Your task to perform on an android device: turn on the 12-hour format for clock Image 0: 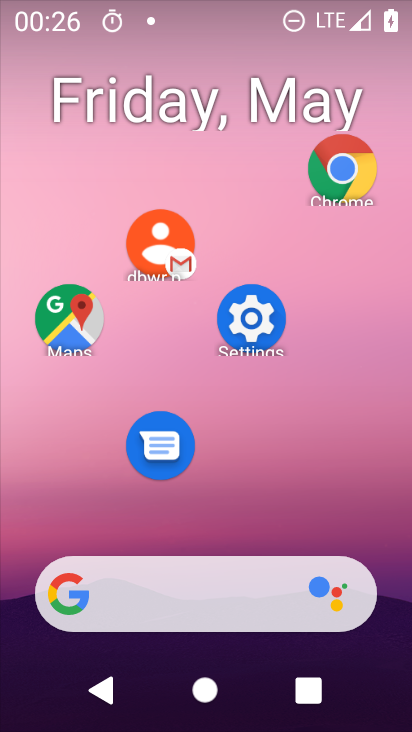
Step 0: drag from (213, 510) to (257, 126)
Your task to perform on an android device: turn on the 12-hour format for clock Image 1: 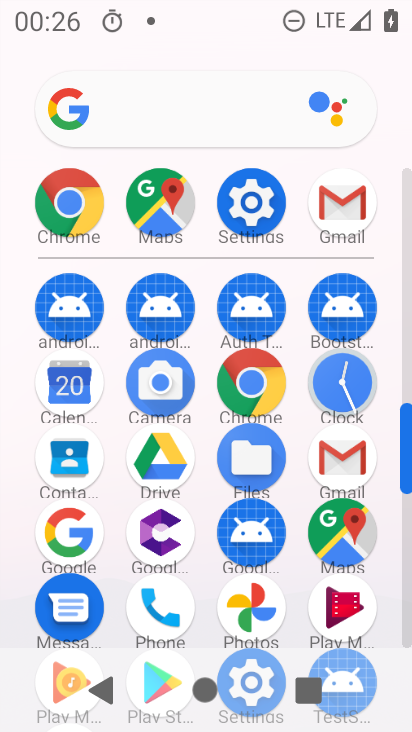
Step 1: click (340, 352)
Your task to perform on an android device: turn on the 12-hour format for clock Image 2: 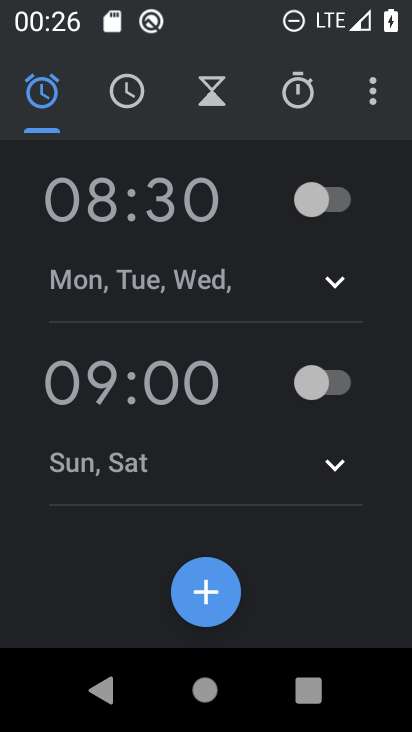
Step 2: click (371, 81)
Your task to perform on an android device: turn on the 12-hour format for clock Image 3: 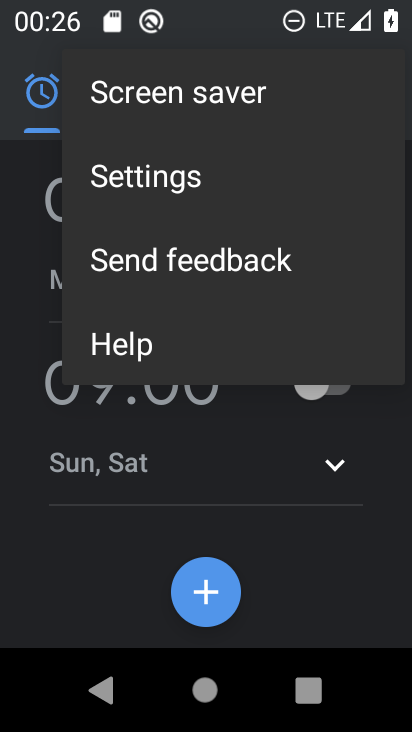
Step 3: click (209, 192)
Your task to perform on an android device: turn on the 12-hour format for clock Image 4: 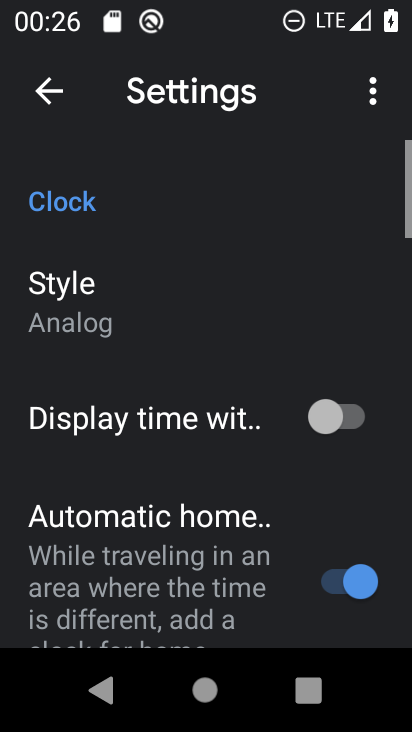
Step 4: drag from (252, 469) to (354, 68)
Your task to perform on an android device: turn on the 12-hour format for clock Image 5: 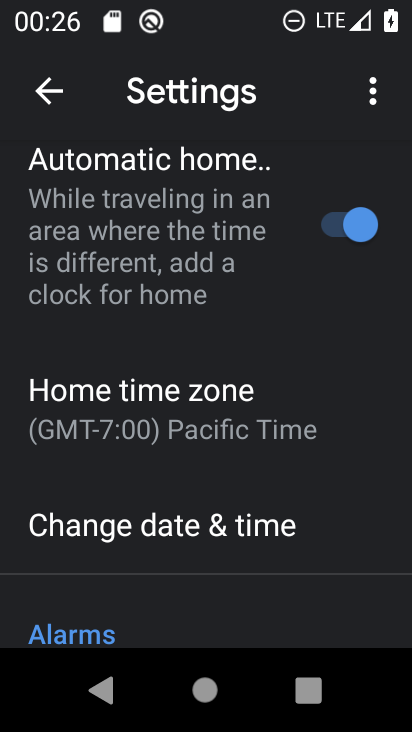
Step 5: click (223, 510)
Your task to perform on an android device: turn on the 12-hour format for clock Image 6: 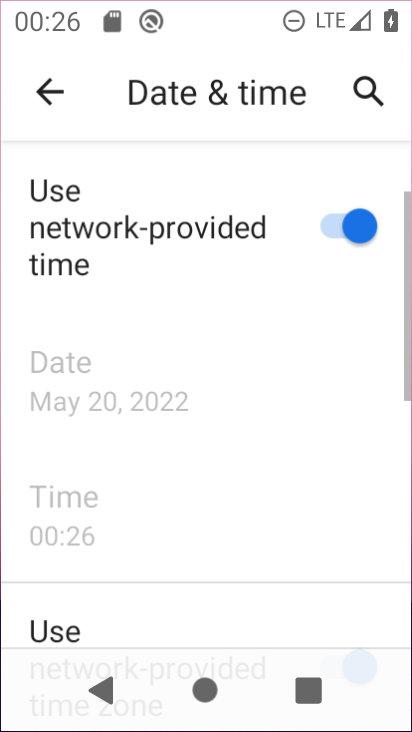
Step 6: drag from (296, 523) to (382, 16)
Your task to perform on an android device: turn on the 12-hour format for clock Image 7: 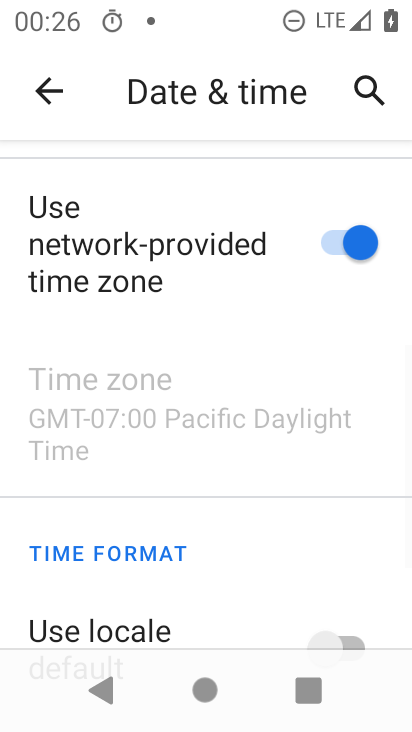
Step 7: drag from (321, 587) to (381, 155)
Your task to perform on an android device: turn on the 12-hour format for clock Image 8: 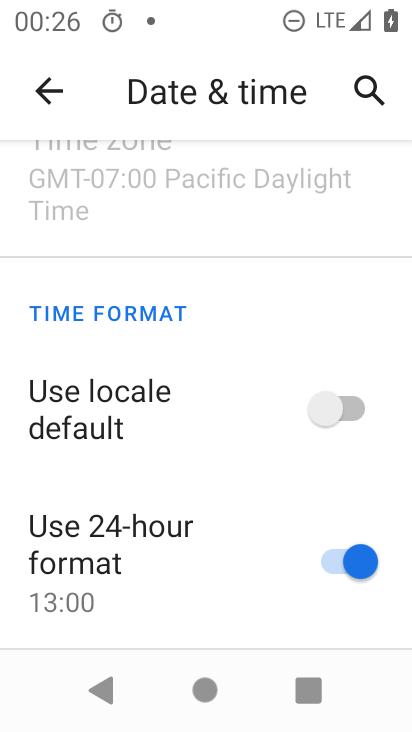
Step 8: click (349, 565)
Your task to perform on an android device: turn on the 12-hour format for clock Image 9: 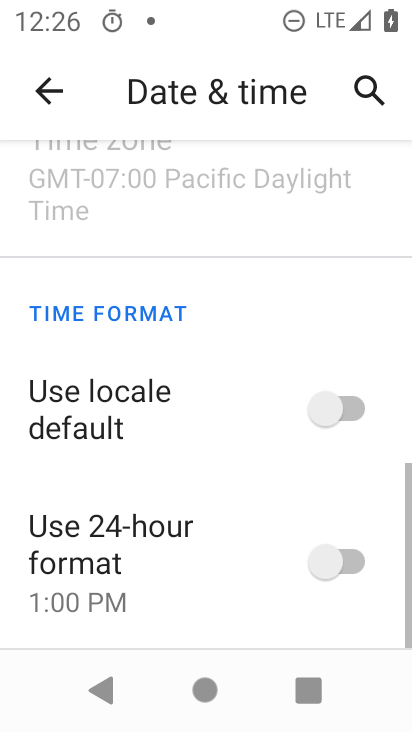
Step 9: task complete